Your task to perform on an android device: check storage Image 0: 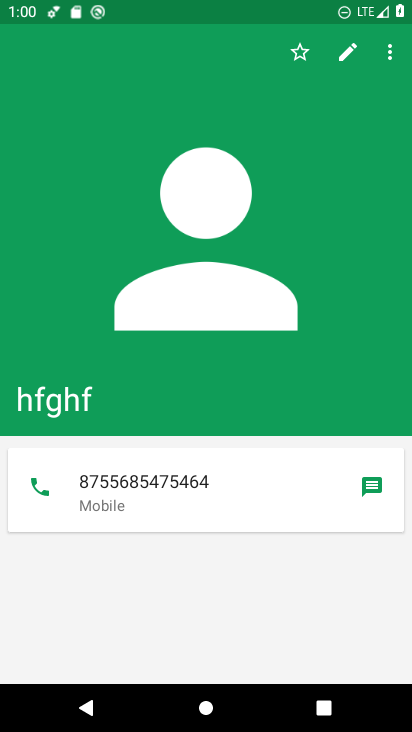
Step 0: press home button
Your task to perform on an android device: check storage Image 1: 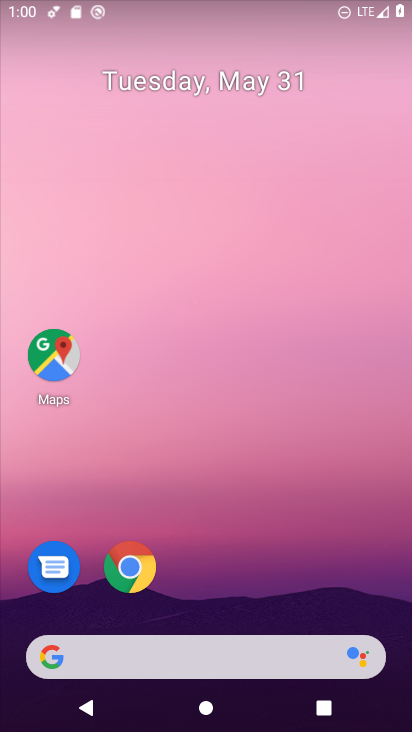
Step 1: drag from (213, 595) to (241, 188)
Your task to perform on an android device: check storage Image 2: 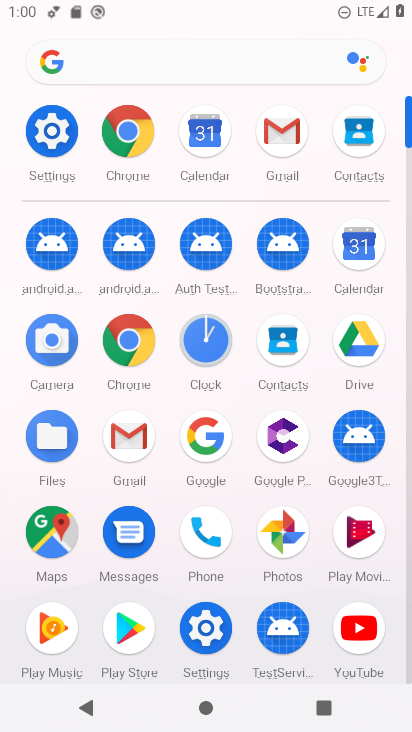
Step 2: click (41, 148)
Your task to perform on an android device: check storage Image 3: 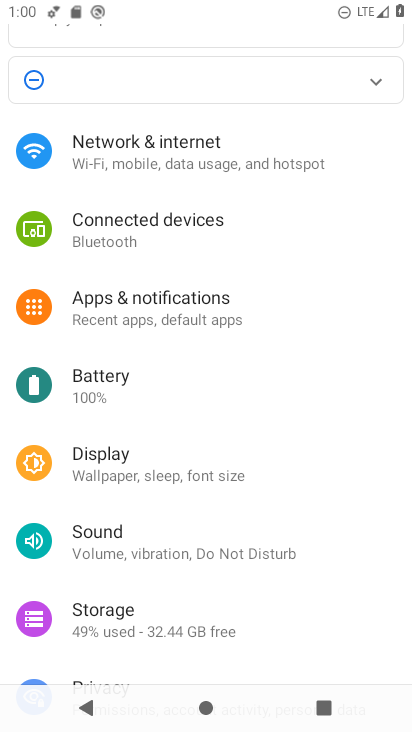
Step 3: click (152, 600)
Your task to perform on an android device: check storage Image 4: 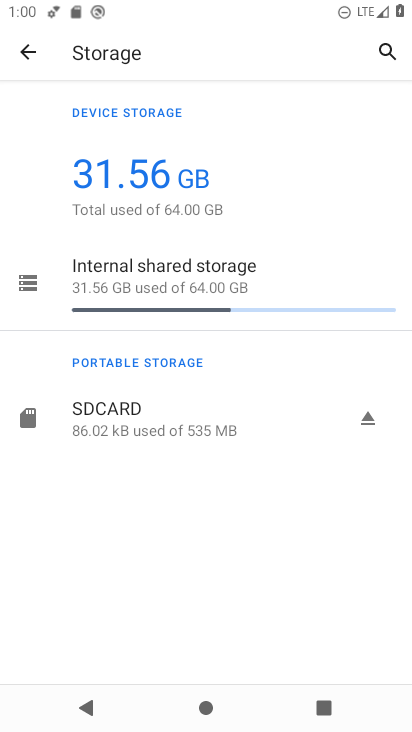
Step 4: task complete